Your task to perform on an android device: clear history in the chrome app Image 0: 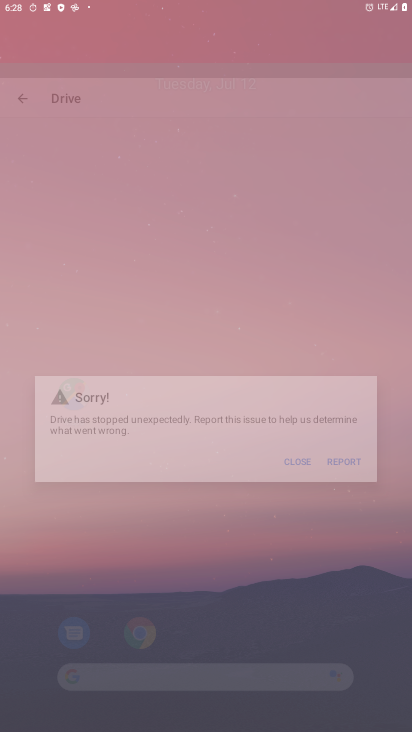
Step 0: press home button
Your task to perform on an android device: clear history in the chrome app Image 1: 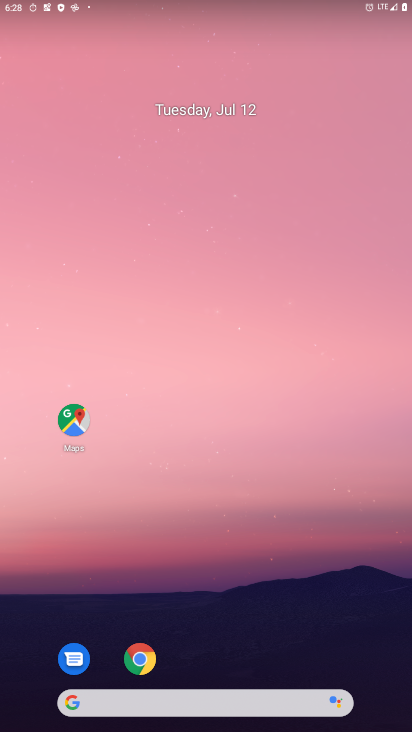
Step 1: click (142, 662)
Your task to perform on an android device: clear history in the chrome app Image 2: 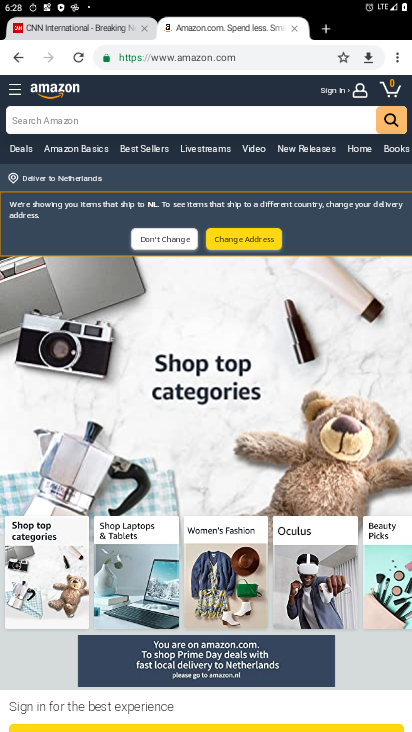
Step 2: click (392, 63)
Your task to perform on an android device: clear history in the chrome app Image 3: 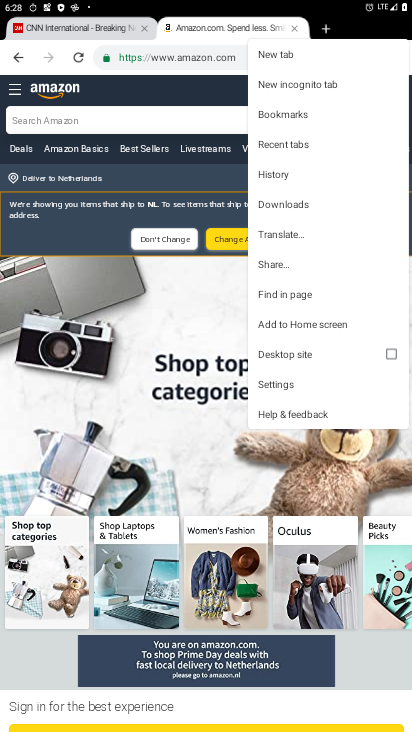
Step 3: click (276, 172)
Your task to perform on an android device: clear history in the chrome app Image 4: 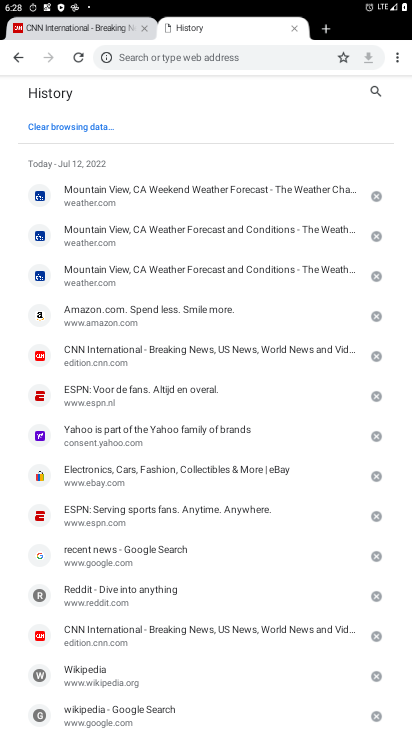
Step 4: click (64, 128)
Your task to perform on an android device: clear history in the chrome app Image 5: 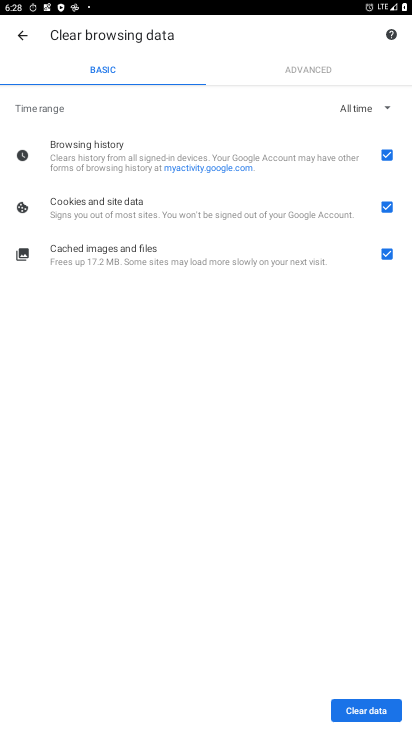
Step 5: click (364, 702)
Your task to perform on an android device: clear history in the chrome app Image 6: 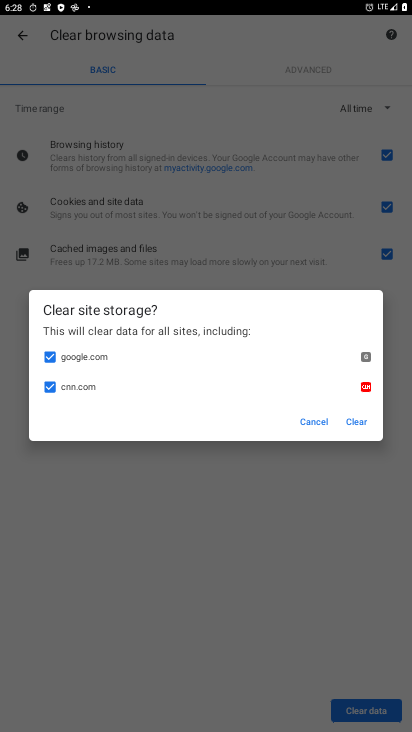
Step 6: click (350, 427)
Your task to perform on an android device: clear history in the chrome app Image 7: 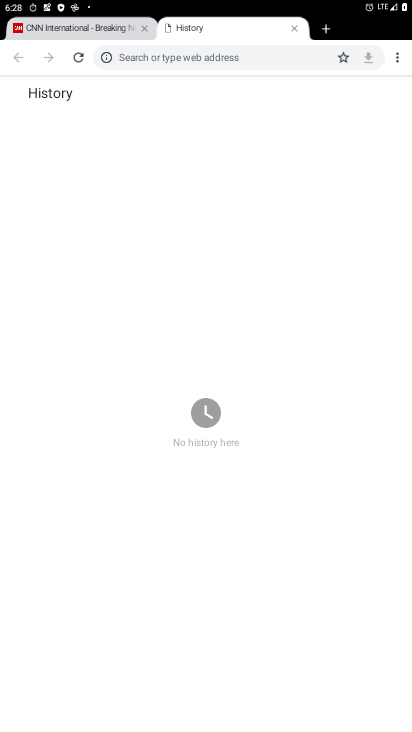
Step 7: task complete